Your task to perform on an android device: find which apps use the phone's location Image 0: 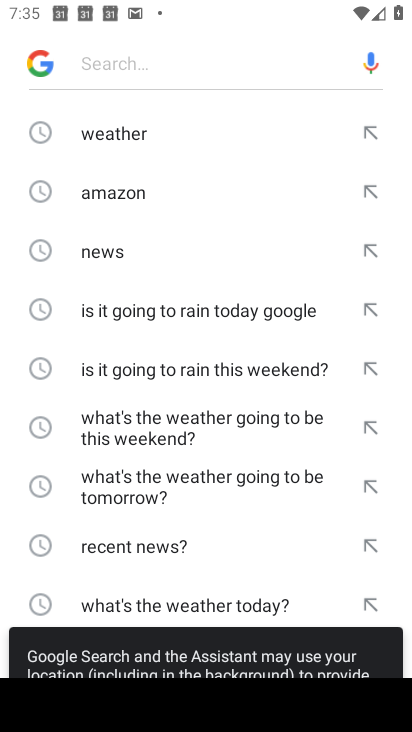
Step 0: press home button
Your task to perform on an android device: find which apps use the phone's location Image 1: 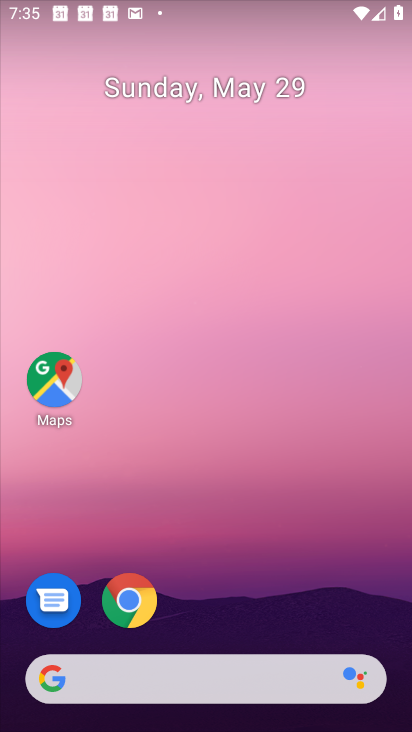
Step 1: drag from (307, 585) to (287, 209)
Your task to perform on an android device: find which apps use the phone's location Image 2: 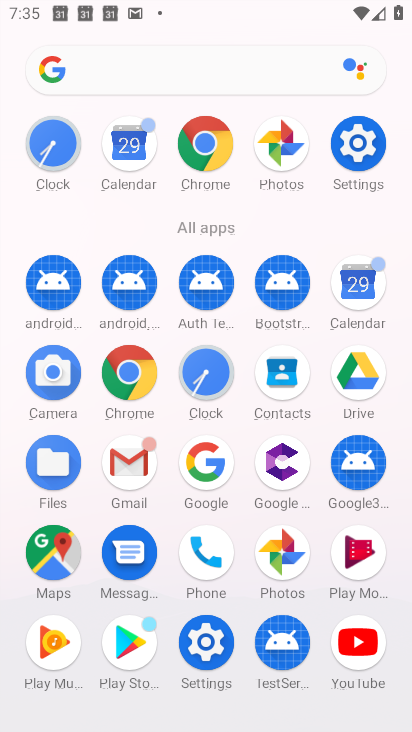
Step 2: click (239, 656)
Your task to perform on an android device: find which apps use the phone's location Image 3: 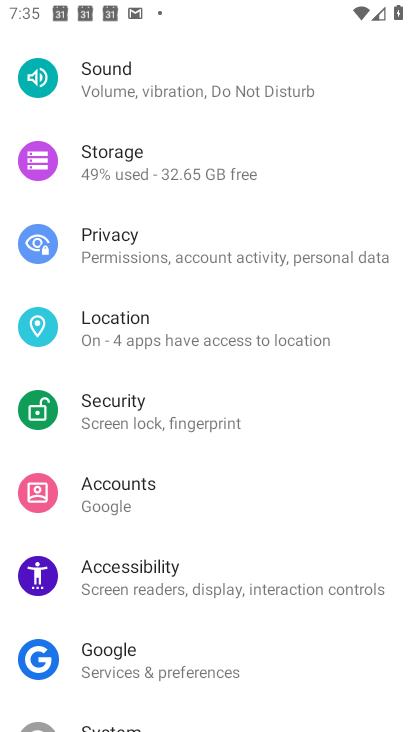
Step 3: click (194, 332)
Your task to perform on an android device: find which apps use the phone's location Image 4: 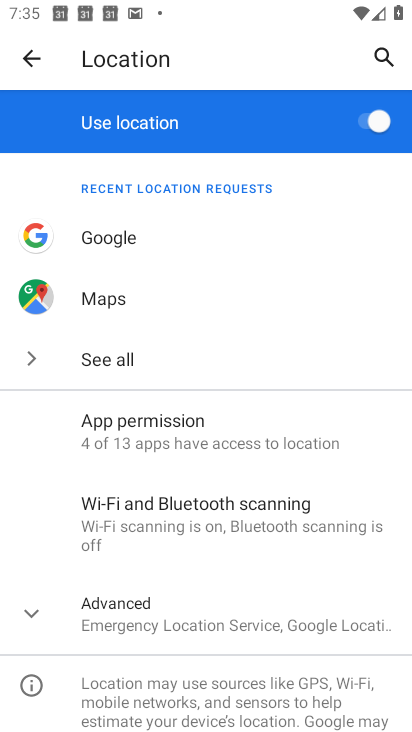
Step 4: task complete